Your task to perform on an android device: Open Youtube and go to the subscriptions tab Image 0: 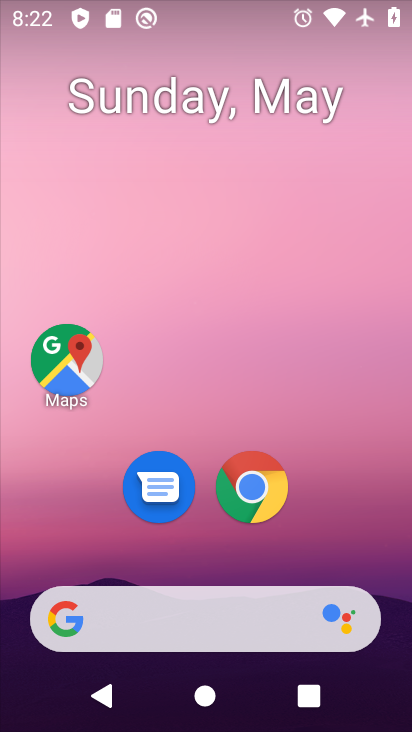
Step 0: drag from (205, 489) to (248, 101)
Your task to perform on an android device: Open Youtube and go to the subscriptions tab Image 1: 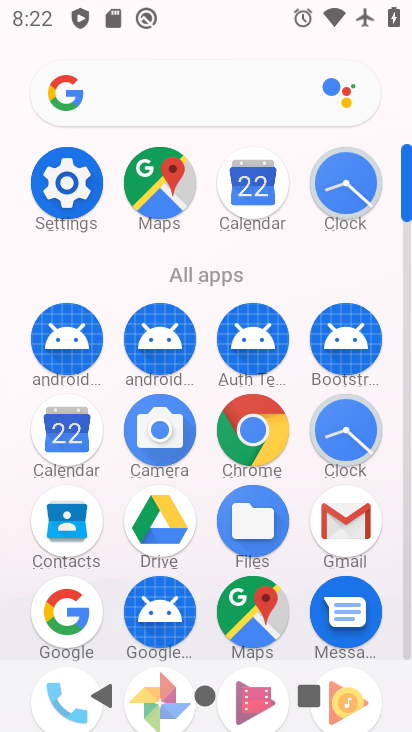
Step 1: drag from (212, 621) to (306, 154)
Your task to perform on an android device: Open Youtube and go to the subscriptions tab Image 2: 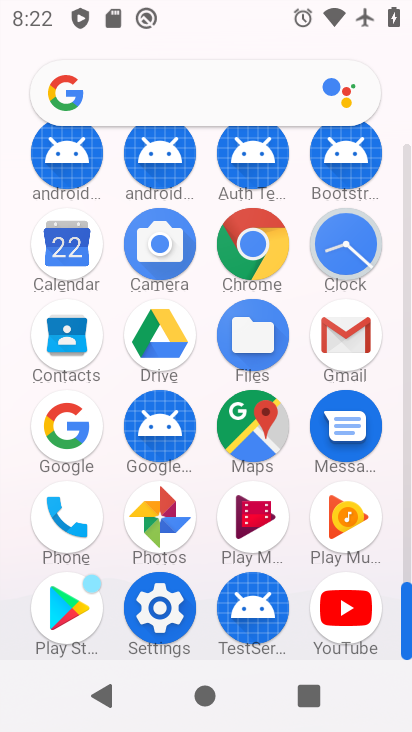
Step 2: click (335, 607)
Your task to perform on an android device: Open Youtube and go to the subscriptions tab Image 3: 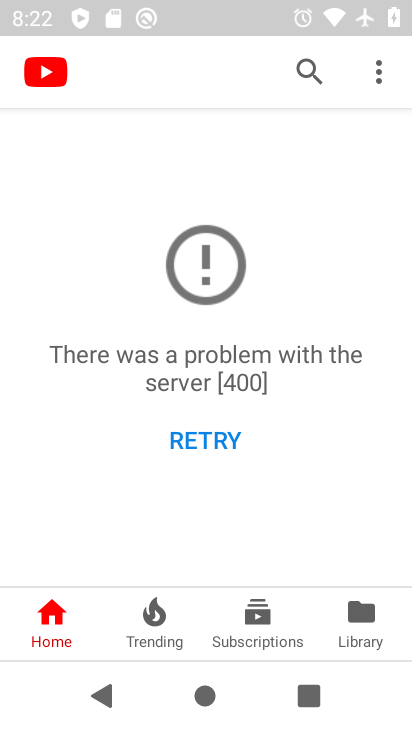
Step 3: click (262, 628)
Your task to perform on an android device: Open Youtube and go to the subscriptions tab Image 4: 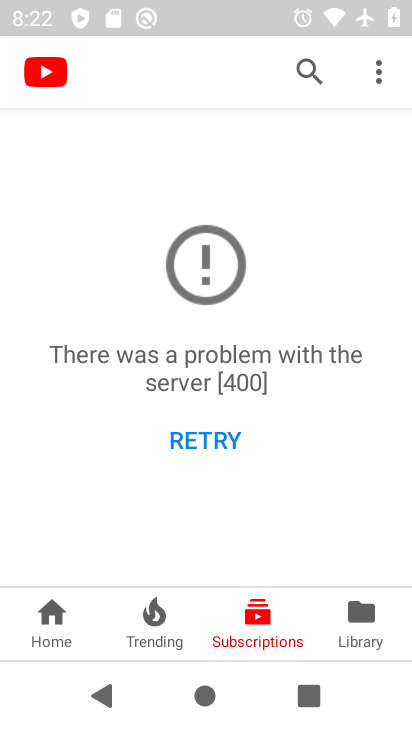
Step 4: task complete